Your task to perform on an android device: What is the recent news? Image 0: 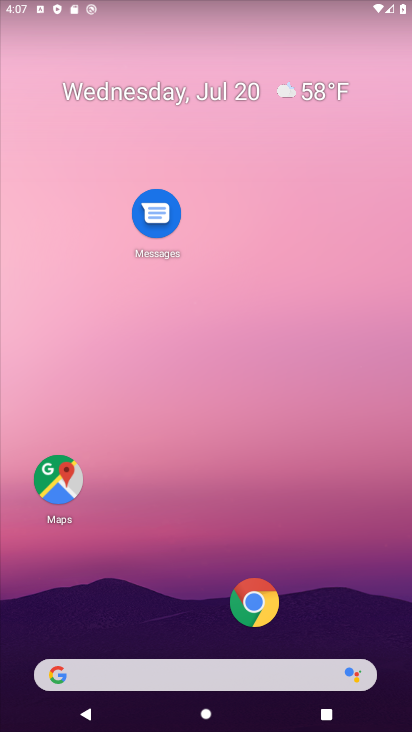
Step 0: click (137, 669)
Your task to perform on an android device: What is the recent news? Image 1: 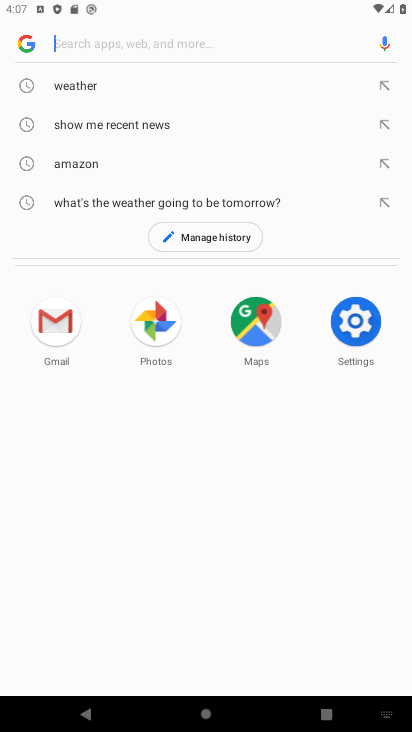
Step 1: click (109, 122)
Your task to perform on an android device: What is the recent news? Image 2: 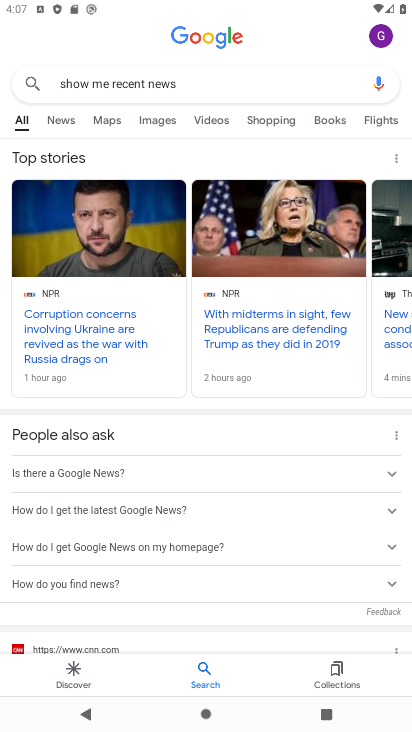
Step 2: task complete